Your task to perform on an android device: turn on improve location accuracy Image 0: 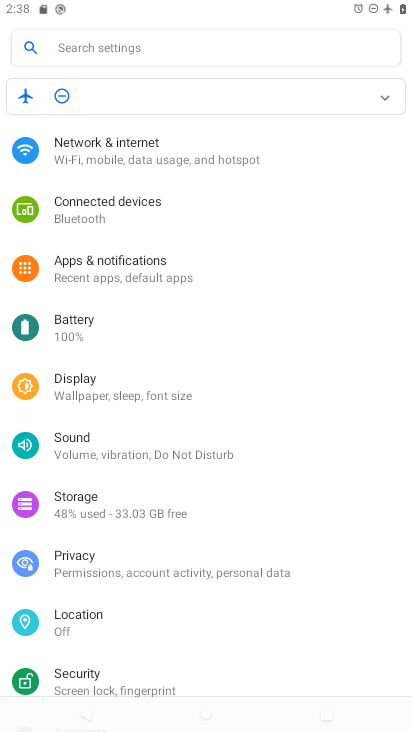
Step 0: click (106, 627)
Your task to perform on an android device: turn on improve location accuracy Image 1: 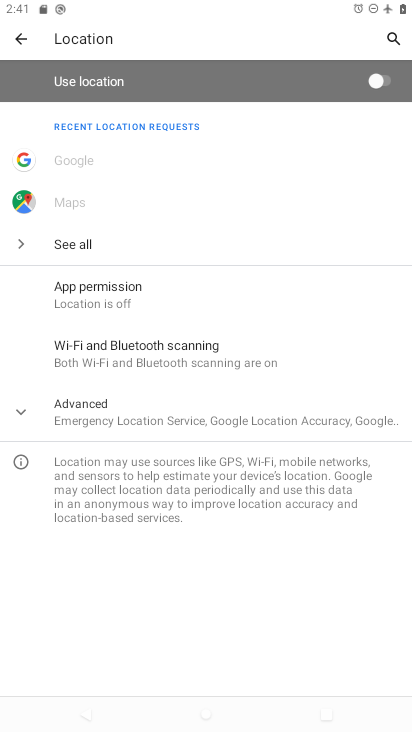
Step 1: click (214, 421)
Your task to perform on an android device: turn on improve location accuracy Image 2: 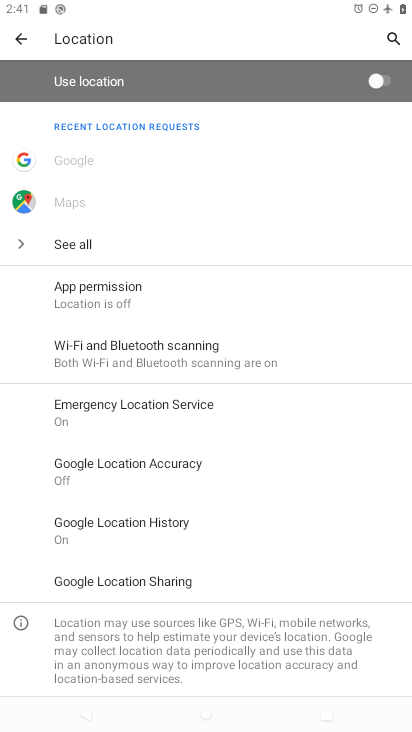
Step 2: click (184, 463)
Your task to perform on an android device: turn on improve location accuracy Image 3: 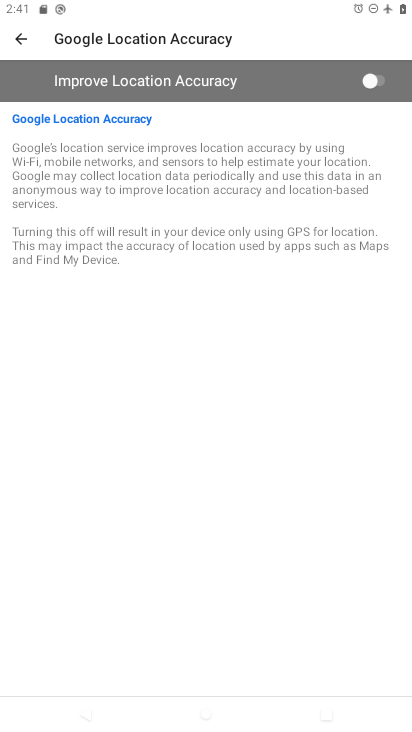
Step 3: click (386, 82)
Your task to perform on an android device: turn on improve location accuracy Image 4: 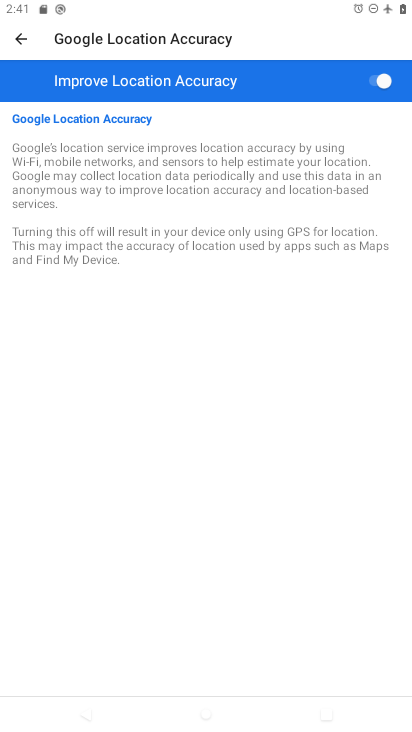
Step 4: task complete